Your task to perform on an android device: What's the weather going to be this weekend? Image 0: 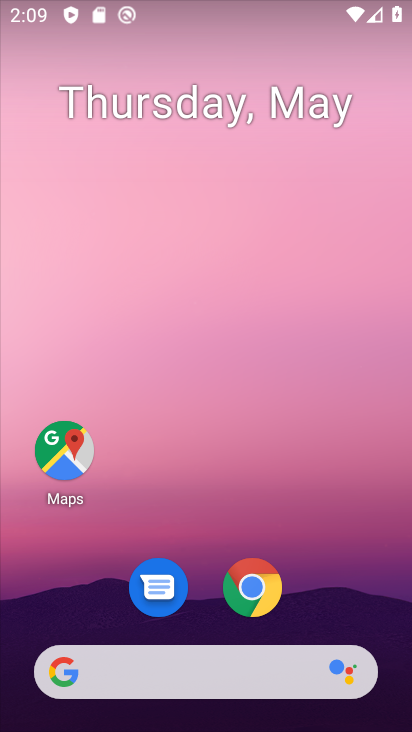
Step 0: drag from (366, 524) to (341, 128)
Your task to perform on an android device: What's the weather going to be this weekend? Image 1: 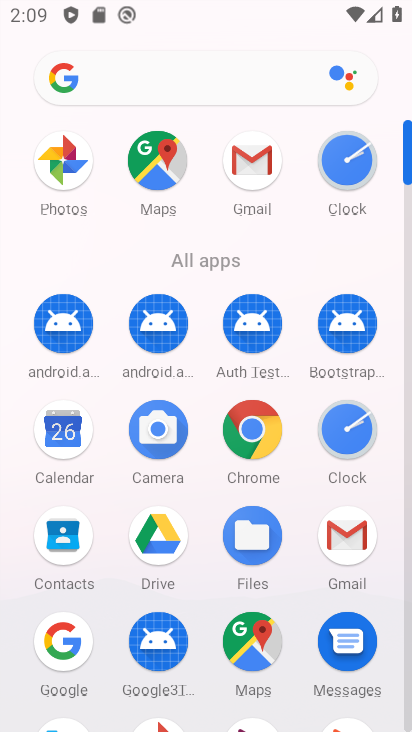
Step 1: click (262, 432)
Your task to perform on an android device: What's the weather going to be this weekend? Image 2: 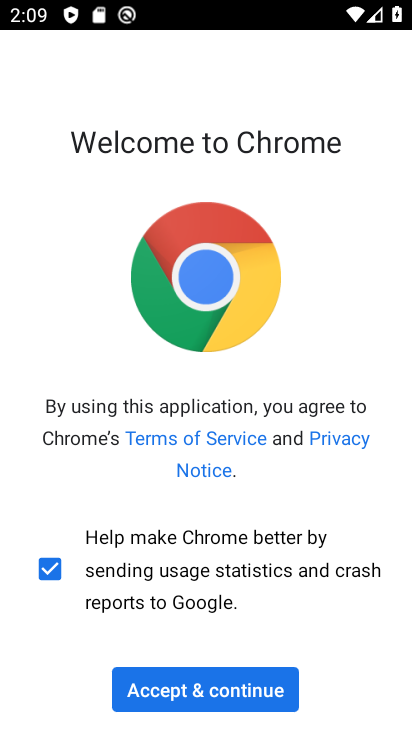
Step 2: click (231, 688)
Your task to perform on an android device: What's the weather going to be this weekend? Image 3: 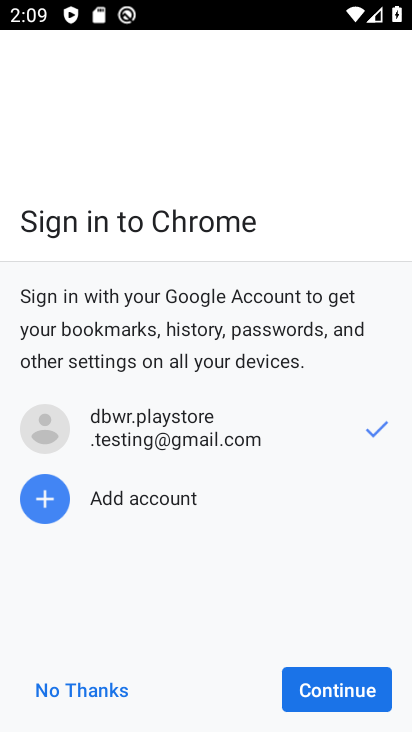
Step 3: click (303, 678)
Your task to perform on an android device: What's the weather going to be this weekend? Image 4: 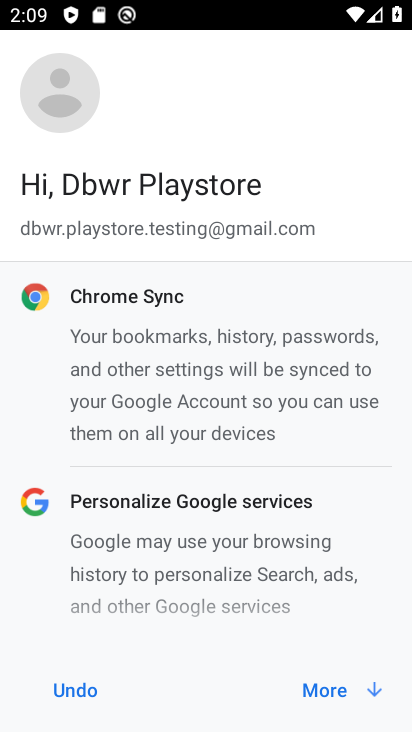
Step 4: click (318, 683)
Your task to perform on an android device: What's the weather going to be this weekend? Image 5: 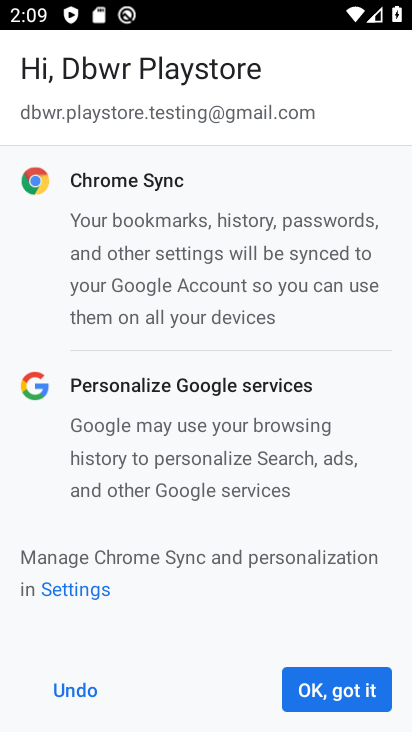
Step 5: click (317, 682)
Your task to perform on an android device: What's the weather going to be this weekend? Image 6: 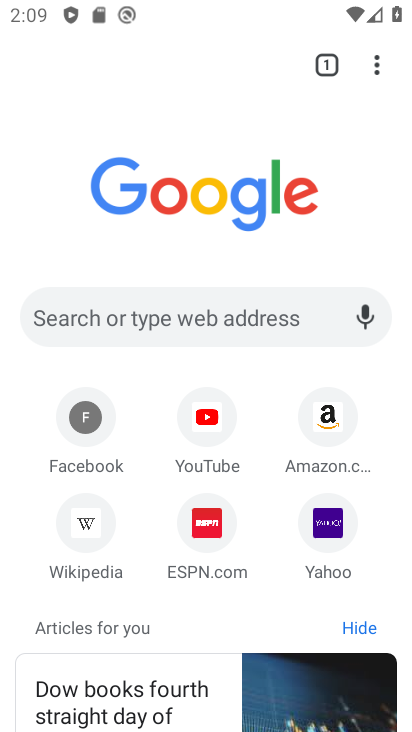
Step 6: click (290, 325)
Your task to perform on an android device: What's the weather going to be this weekend? Image 7: 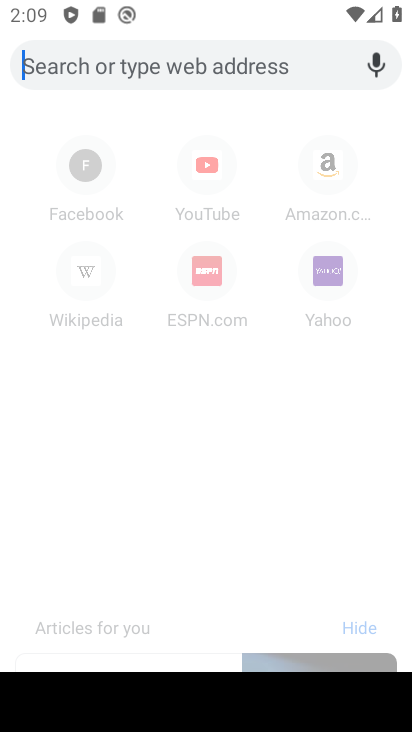
Step 7: type "weather"
Your task to perform on an android device: What's the weather going to be this weekend? Image 8: 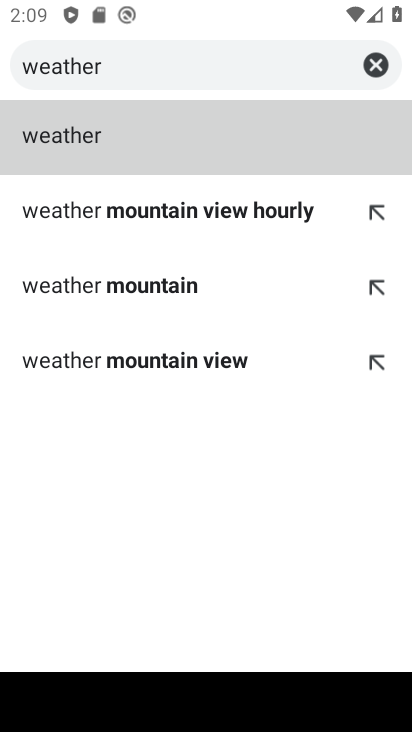
Step 8: click (70, 128)
Your task to perform on an android device: What's the weather going to be this weekend? Image 9: 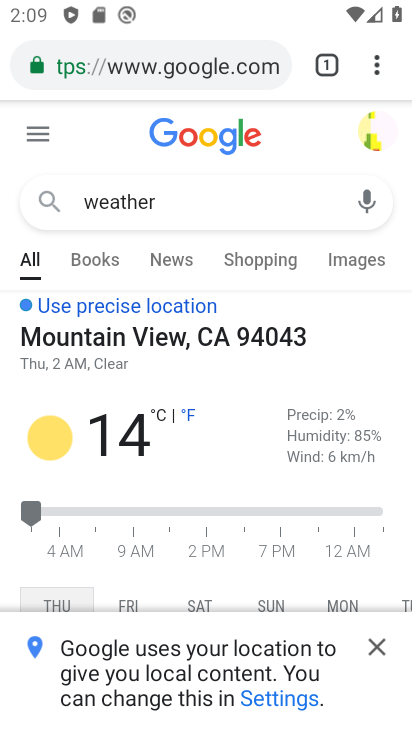
Step 9: task complete